Your task to perform on an android device: Open the stopwatch Image 0: 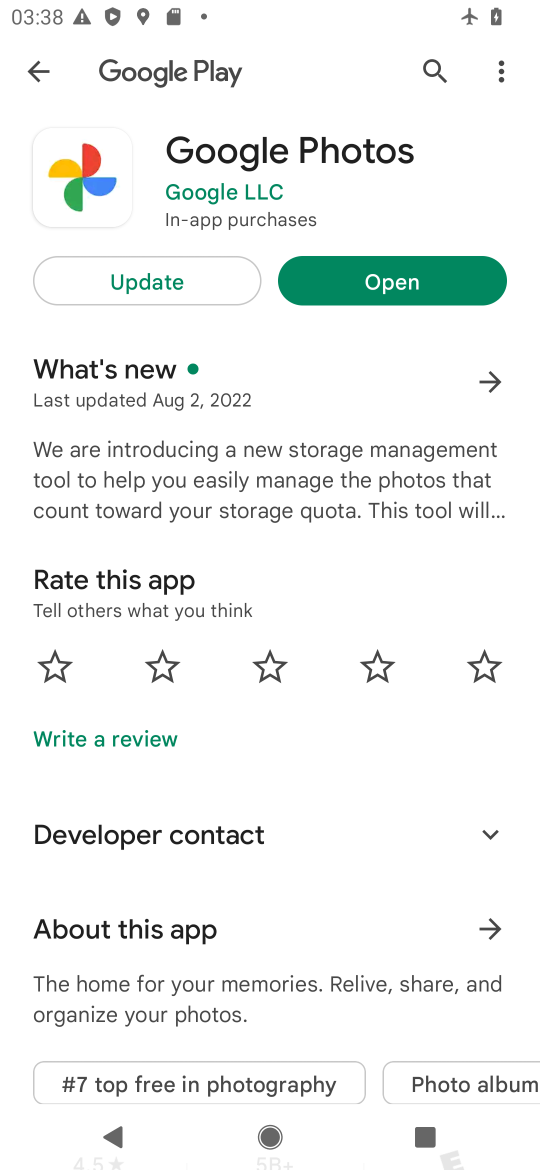
Step 0: press home button
Your task to perform on an android device: Open the stopwatch Image 1: 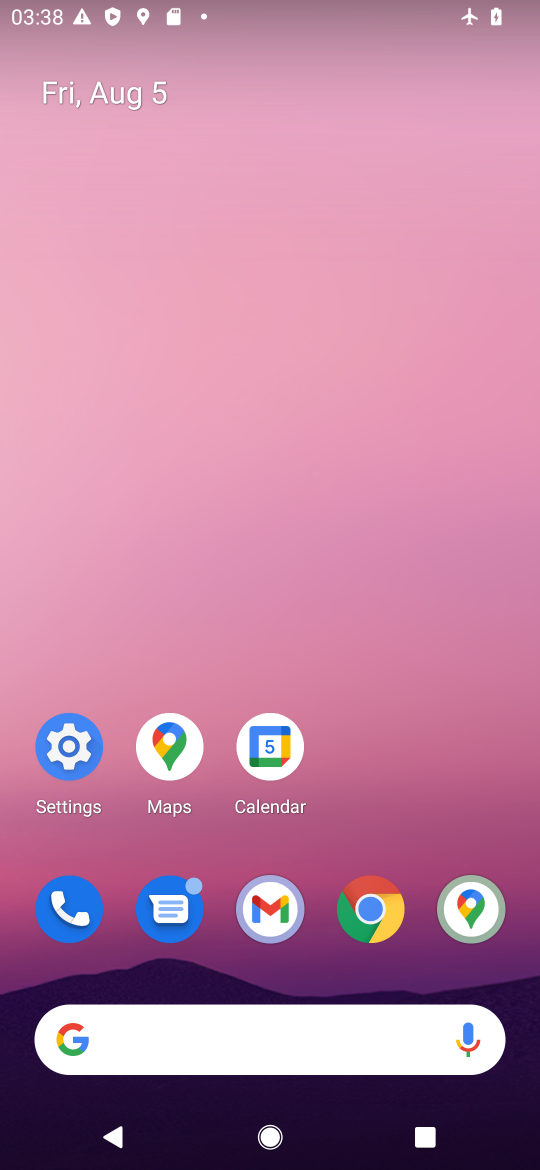
Step 1: drag from (357, 807) to (359, 26)
Your task to perform on an android device: Open the stopwatch Image 2: 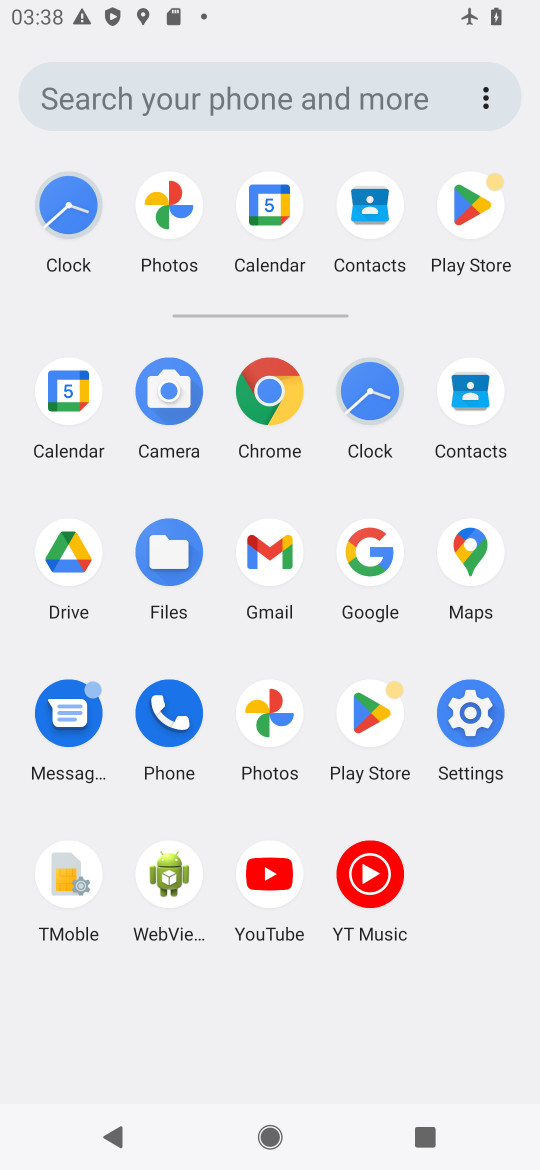
Step 2: click (60, 219)
Your task to perform on an android device: Open the stopwatch Image 3: 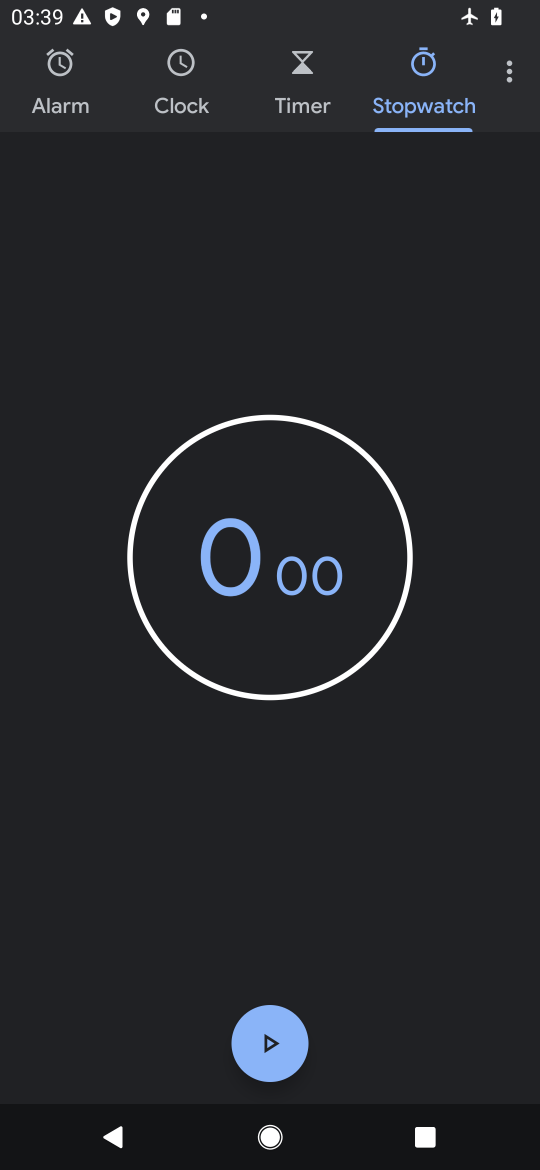
Step 3: task complete